Your task to perform on an android device: Open Reddit.com Image 0: 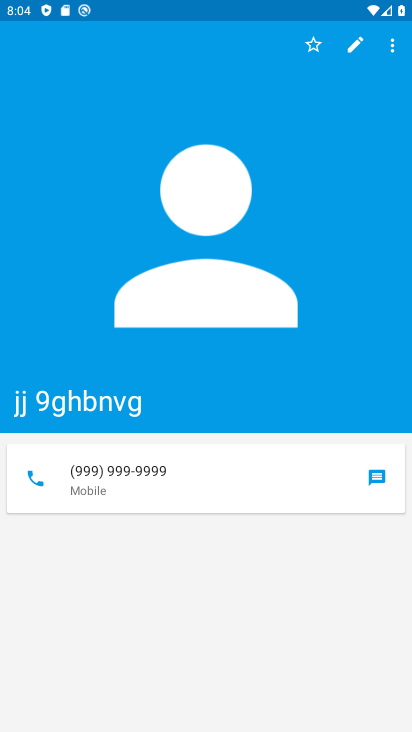
Step 0: press home button
Your task to perform on an android device: Open Reddit.com Image 1: 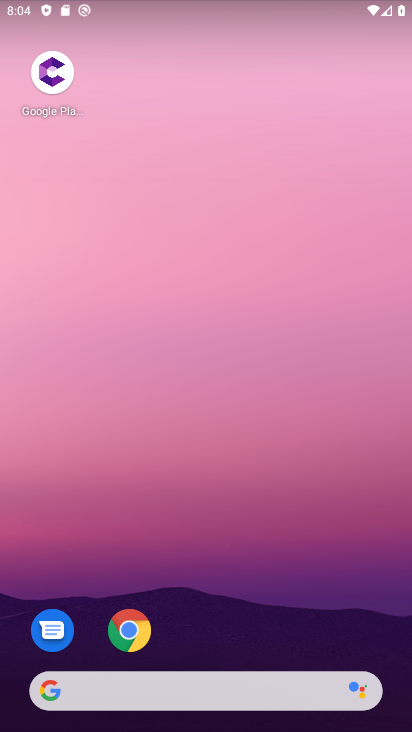
Step 1: click (121, 633)
Your task to perform on an android device: Open Reddit.com Image 2: 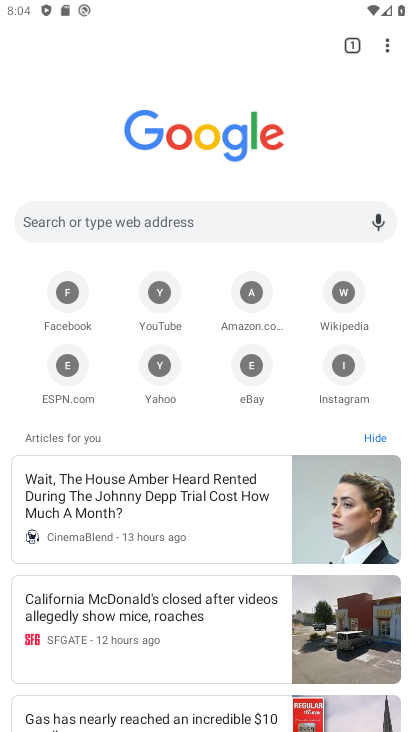
Step 2: click (143, 224)
Your task to perform on an android device: Open Reddit.com Image 3: 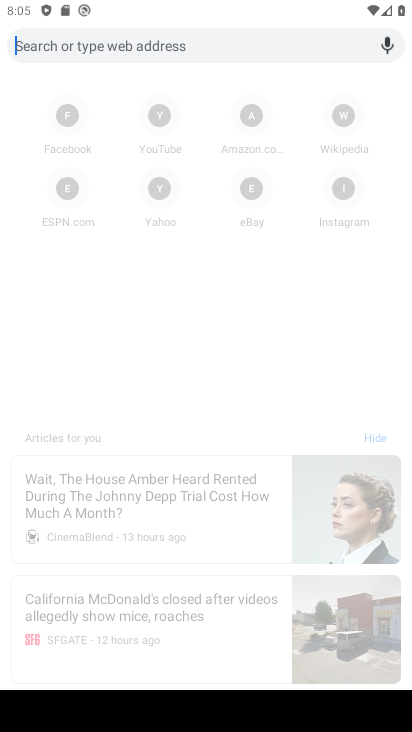
Step 3: type "Reddit.com"
Your task to perform on an android device: Open Reddit.com Image 4: 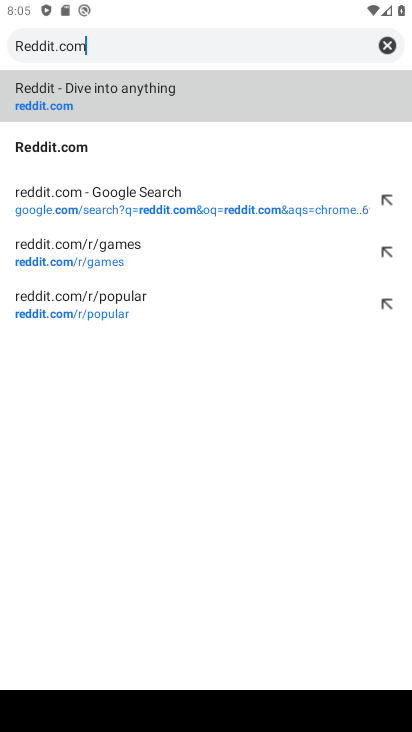
Step 4: click (72, 159)
Your task to perform on an android device: Open Reddit.com Image 5: 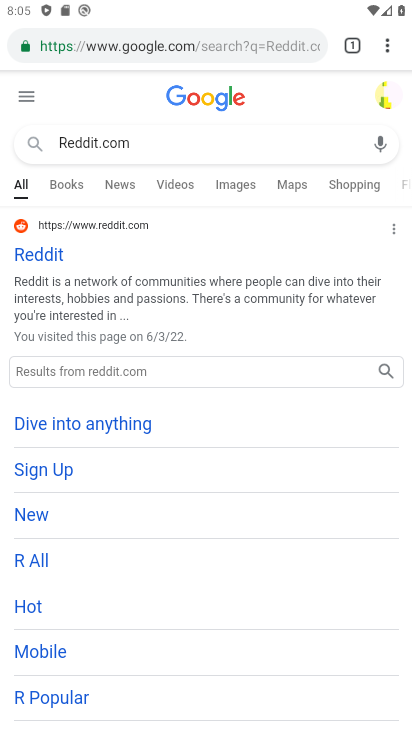
Step 5: task complete